Your task to perform on an android device: delete location history Image 0: 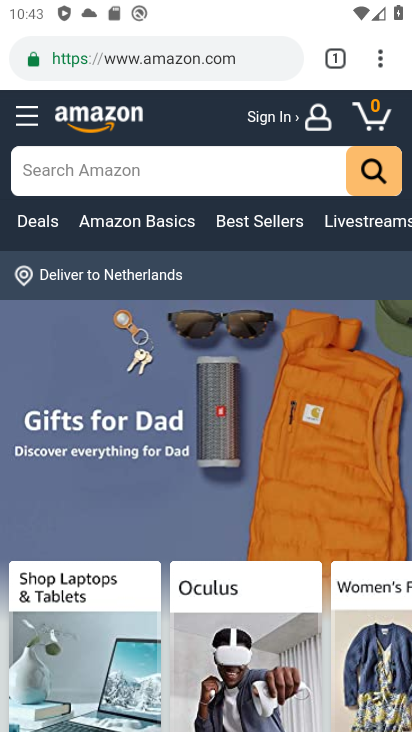
Step 0: press home button
Your task to perform on an android device: delete location history Image 1: 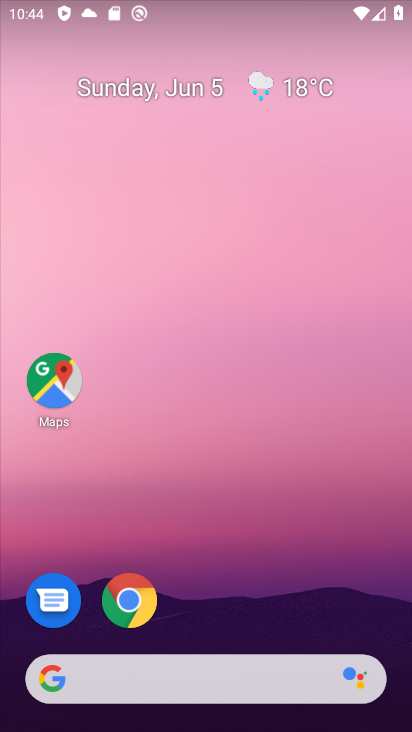
Step 1: drag from (218, 619) to (211, 252)
Your task to perform on an android device: delete location history Image 2: 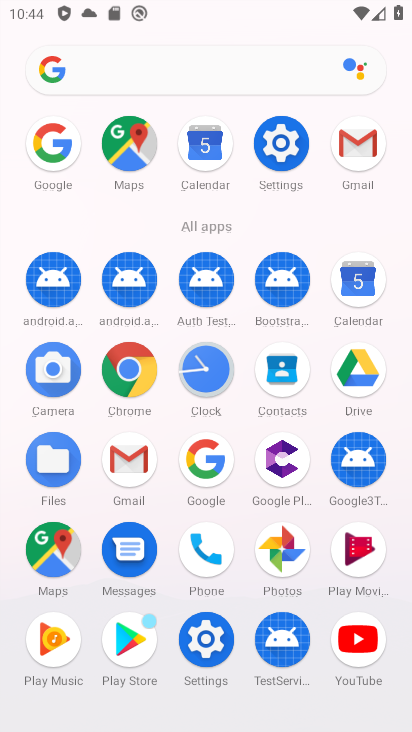
Step 2: click (122, 141)
Your task to perform on an android device: delete location history Image 3: 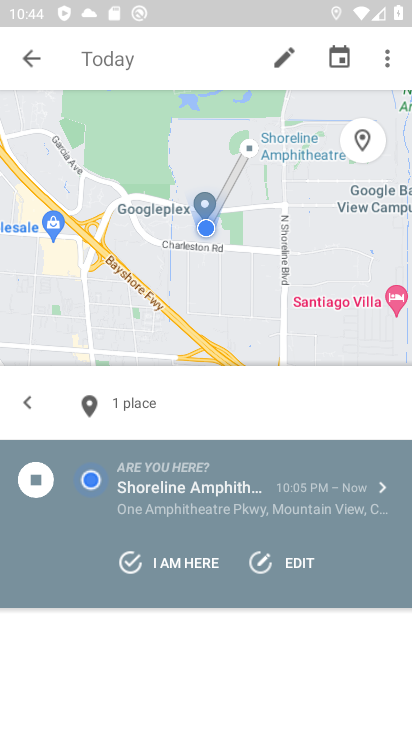
Step 3: click (390, 53)
Your task to perform on an android device: delete location history Image 4: 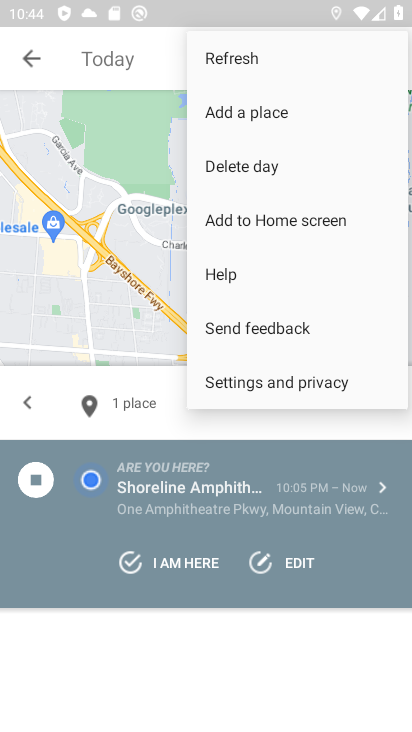
Step 4: click (233, 382)
Your task to perform on an android device: delete location history Image 5: 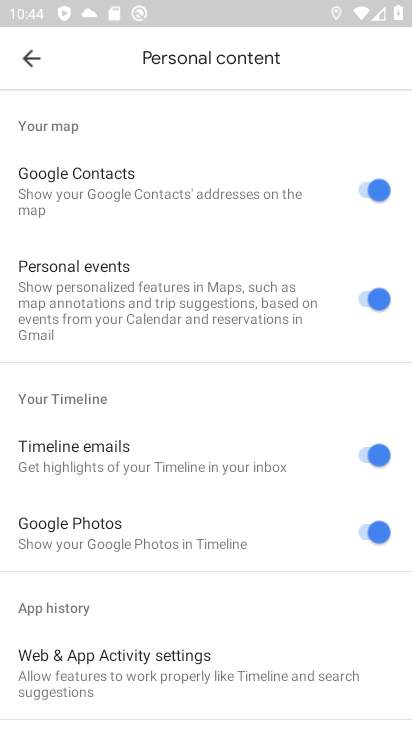
Step 5: drag from (282, 649) to (212, 148)
Your task to perform on an android device: delete location history Image 6: 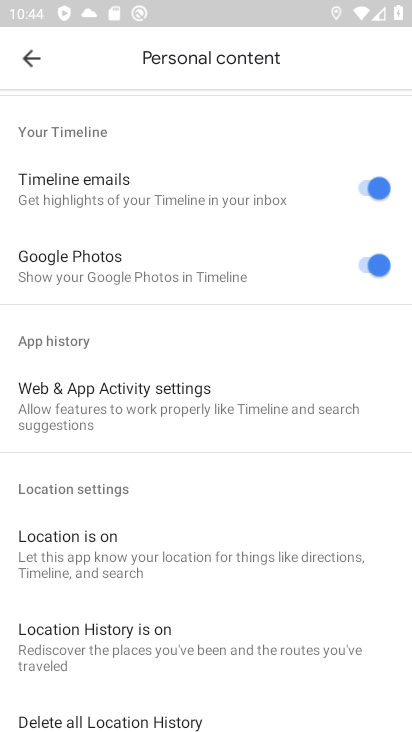
Step 6: drag from (140, 643) to (144, 328)
Your task to perform on an android device: delete location history Image 7: 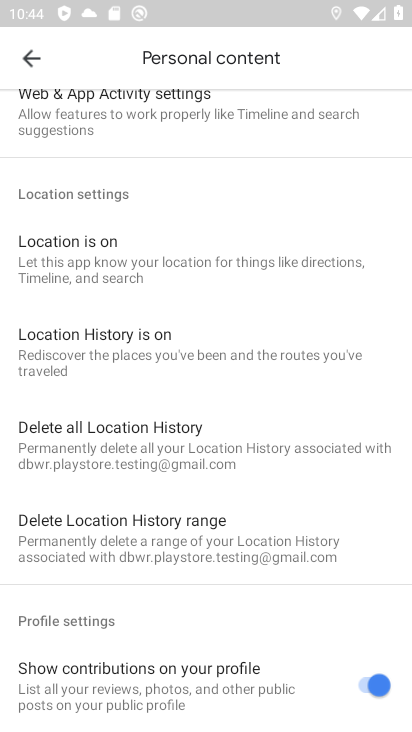
Step 7: click (144, 447)
Your task to perform on an android device: delete location history Image 8: 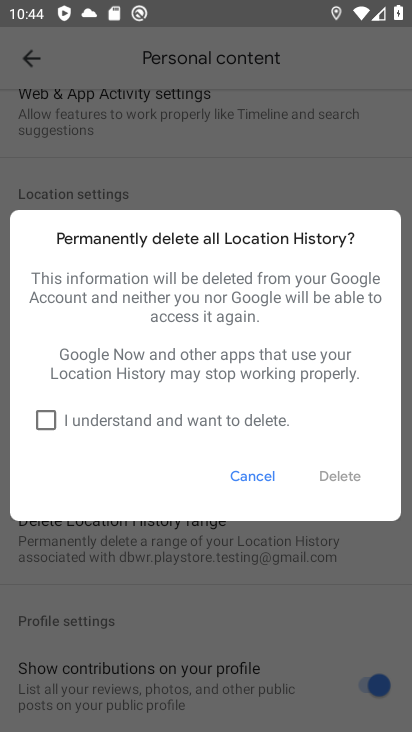
Step 8: click (120, 422)
Your task to perform on an android device: delete location history Image 9: 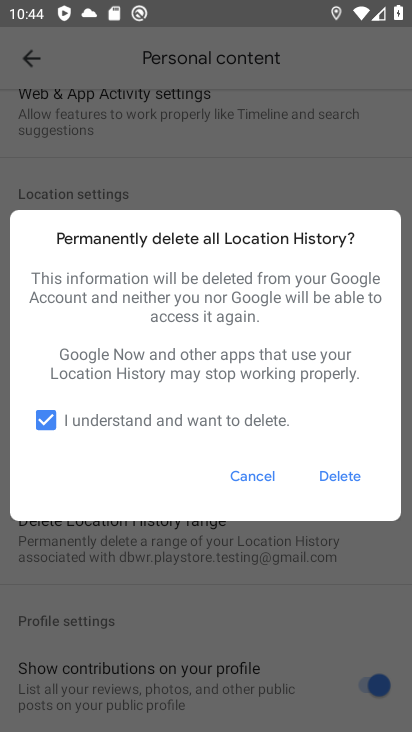
Step 9: click (325, 476)
Your task to perform on an android device: delete location history Image 10: 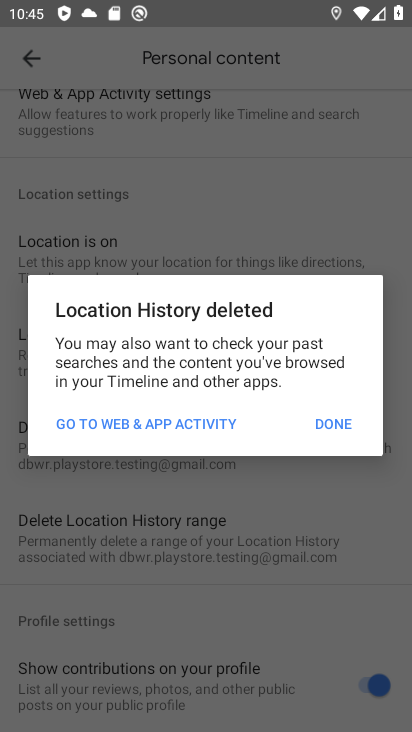
Step 10: click (321, 435)
Your task to perform on an android device: delete location history Image 11: 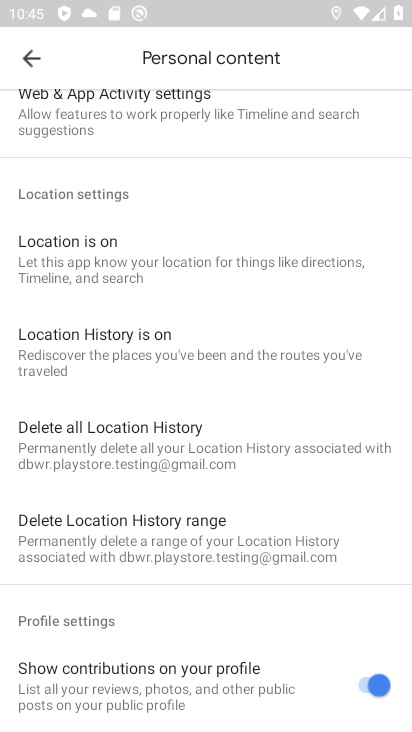
Step 11: task complete